Your task to perform on an android device: turn pop-ups on in chrome Image 0: 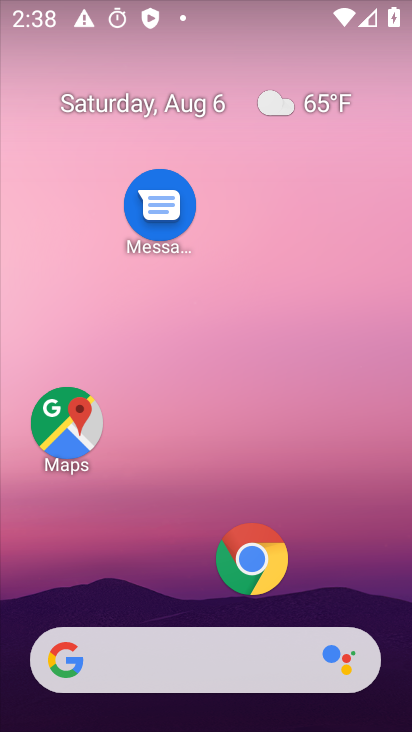
Step 0: click (252, 557)
Your task to perform on an android device: turn pop-ups on in chrome Image 1: 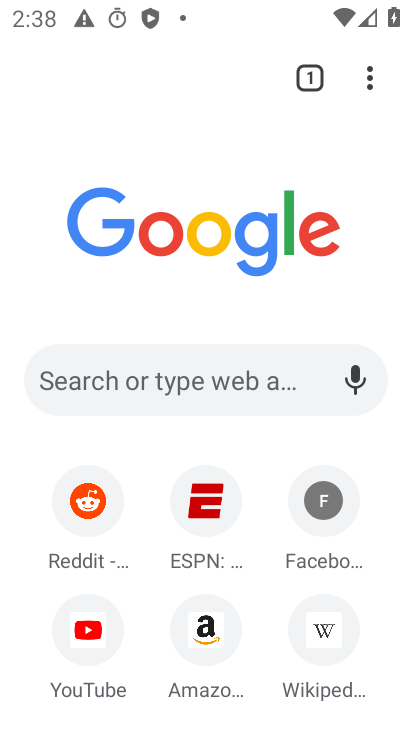
Step 1: click (366, 76)
Your task to perform on an android device: turn pop-ups on in chrome Image 2: 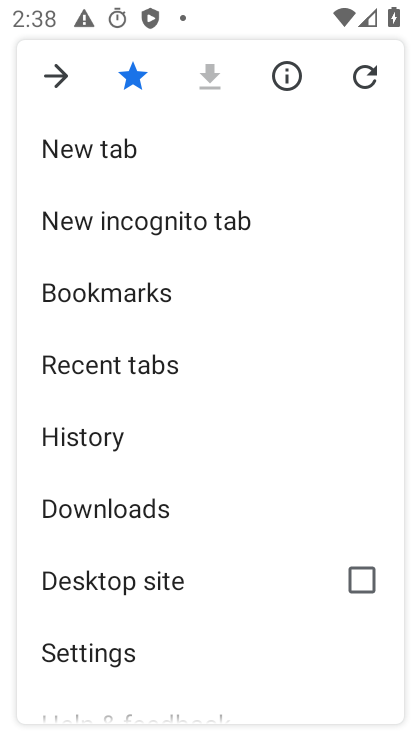
Step 2: click (87, 665)
Your task to perform on an android device: turn pop-ups on in chrome Image 3: 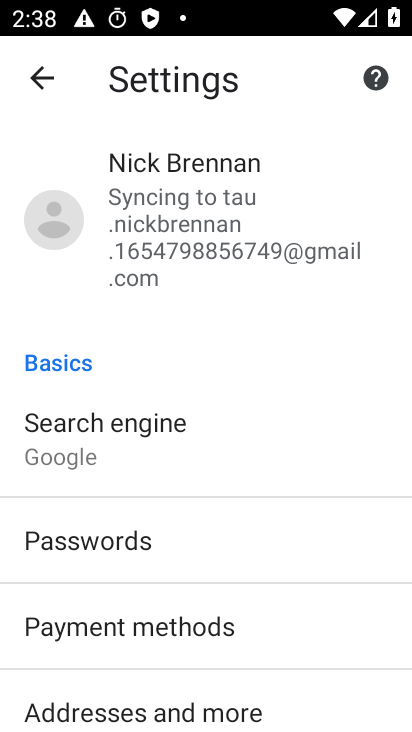
Step 3: drag from (166, 647) to (204, 347)
Your task to perform on an android device: turn pop-ups on in chrome Image 4: 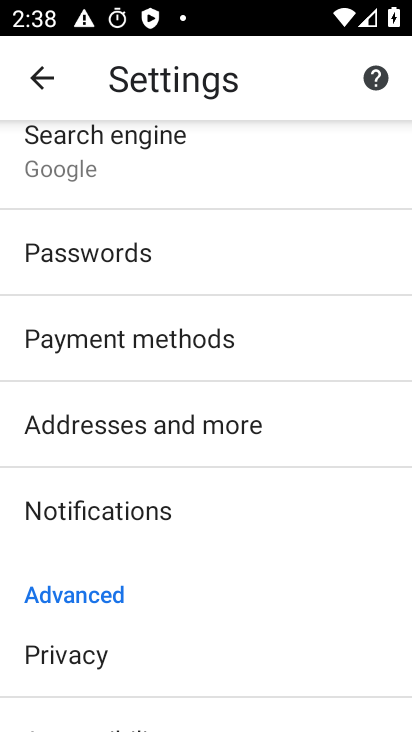
Step 4: drag from (210, 535) to (266, 207)
Your task to perform on an android device: turn pop-ups on in chrome Image 5: 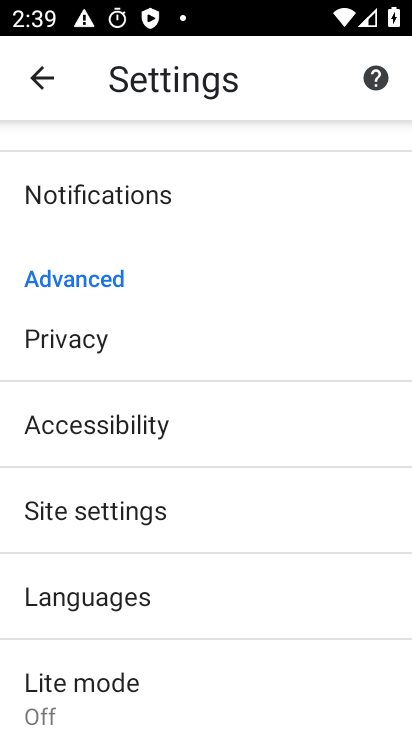
Step 5: click (135, 514)
Your task to perform on an android device: turn pop-ups on in chrome Image 6: 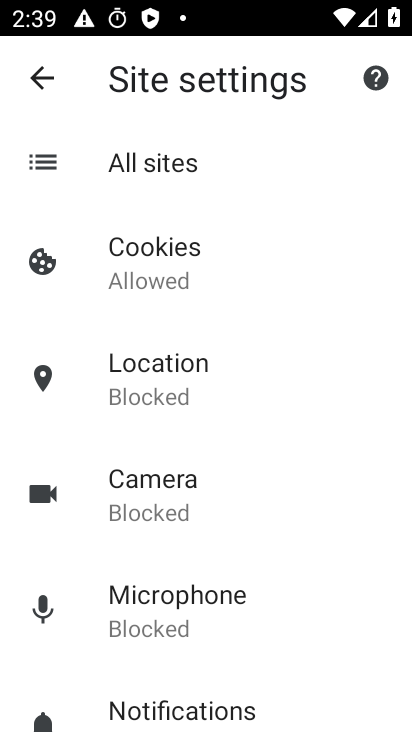
Step 6: drag from (214, 568) to (236, 281)
Your task to perform on an android device: turn pop-ups on in chrome Image 7: 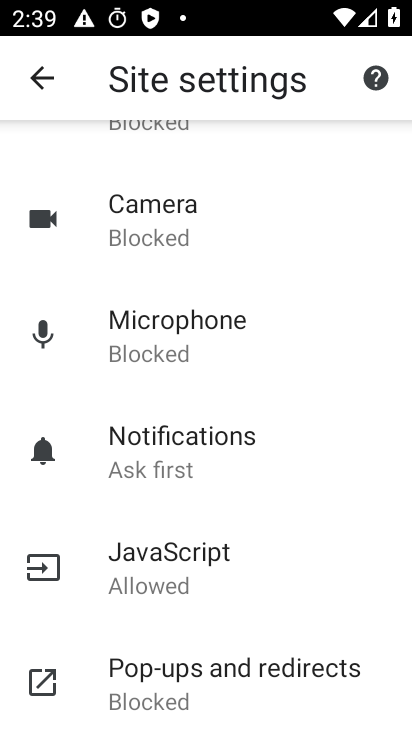
Step 7: click (199, 712)
Your task to perform on an android device: turn pop-ups on in chrome Image 8: 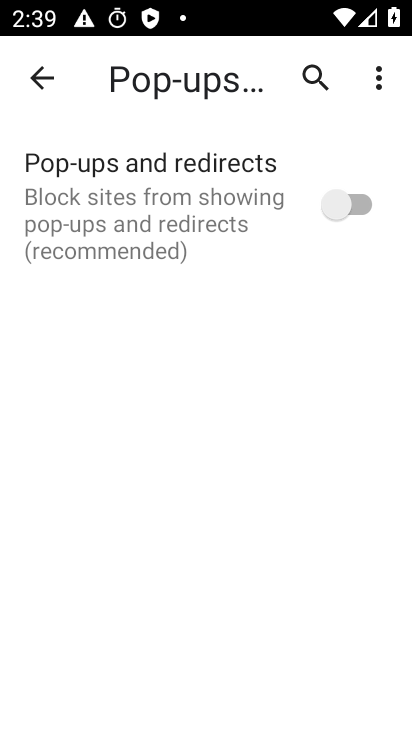
Step 8: click (368, 205)
Your task to perform on an android device: turn pop-ups on in chrome Image 9: 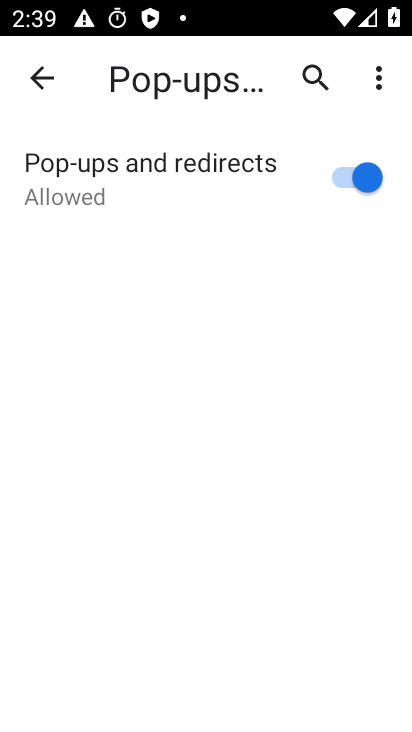
Step 9: task complete